Your task to perform on an android device: Open eBay Image 0: 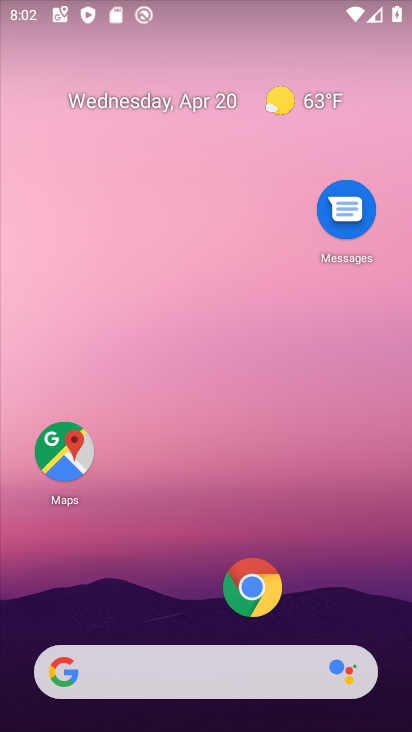
Step 0: drag from (171, 689) to (295, 69)
Your task to perform on an android device: Open eBay Image 1: 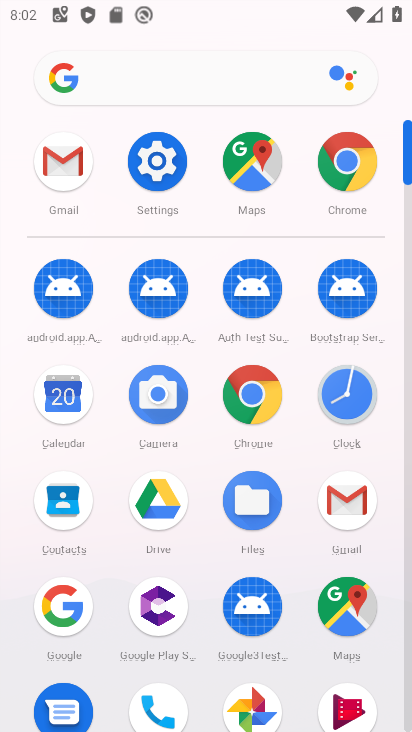
Step 1: click (345, 164)
Your task to perform on an android device: Open eBay Image 2: 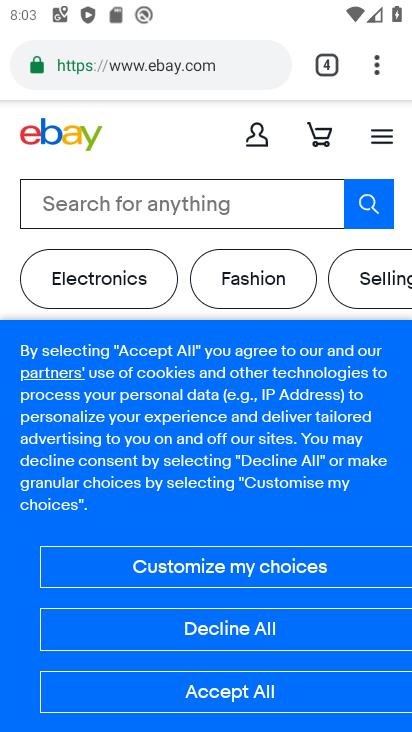
Step 2: task complete